Your task to perform on an android device: toggle pop-ups in chrome Image 0: 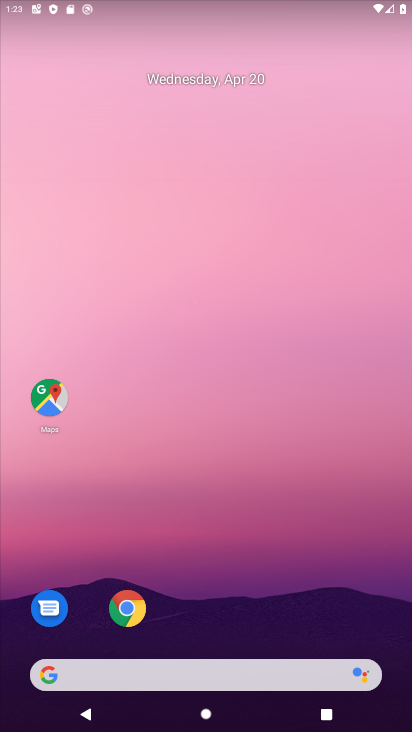
Step 0: click (125, 609)
Your task to perform on an android device: toggle pop-ups in chrome Image 1: 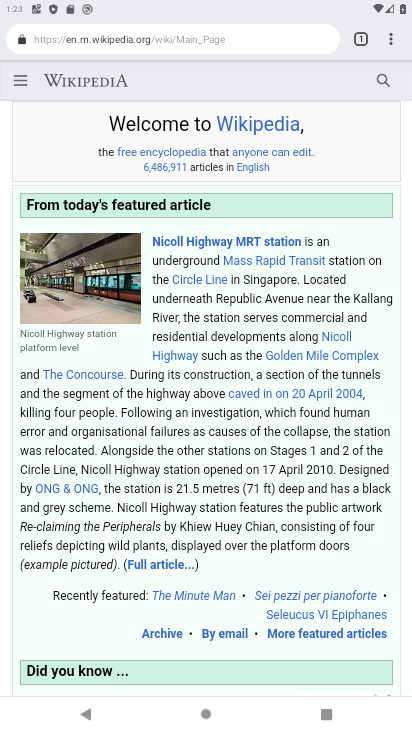
Step 1: click (389, 45)
Your task to perform on an android device: toggle pop-ups in chrome Image 2: 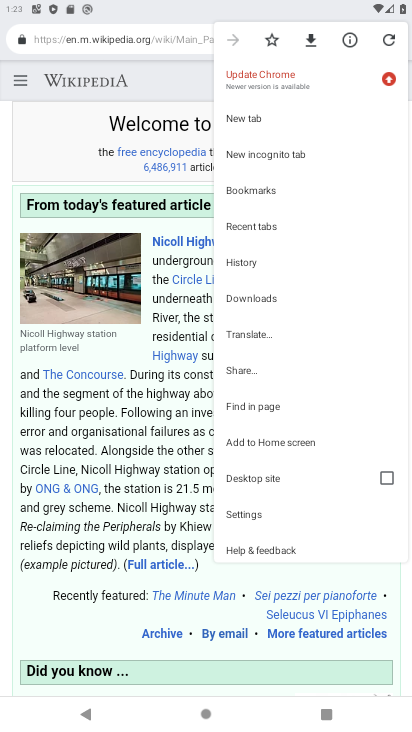
Step 2: click (246, 513)
Your task to perform on an android device: toggle pop-ups in chrome Image 3: 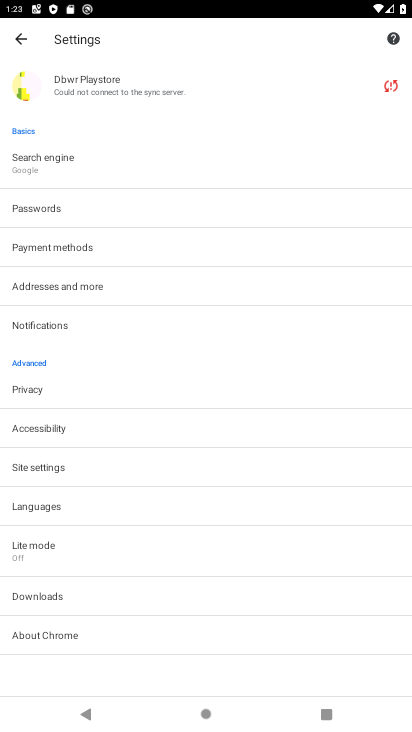
Step 3: click (49, 464)
Your task to perform on an android device: toggle pop-ups in chrome Image 4: 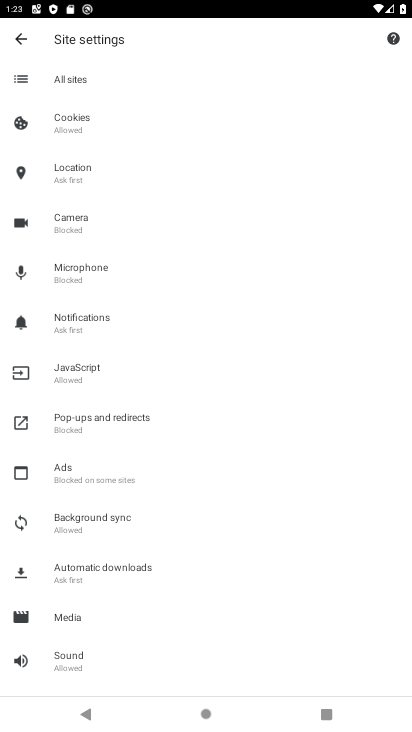
Step 4: click (77, 417)
Your task to perform on an android device: toggle pop-ups in chrome Image 5: 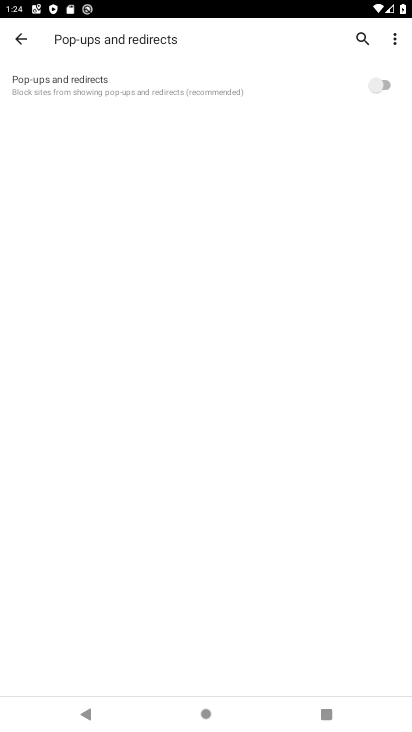
Step 5: click (388, 86)
Your task to perform on an android device: toggle pop-ups in chrome Image 6: 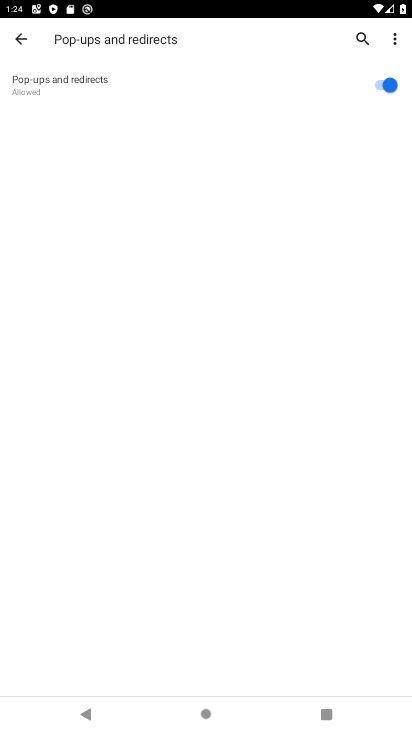
Step 6: task complete